Your task to perform on an android device: Go to network settings Image 0: 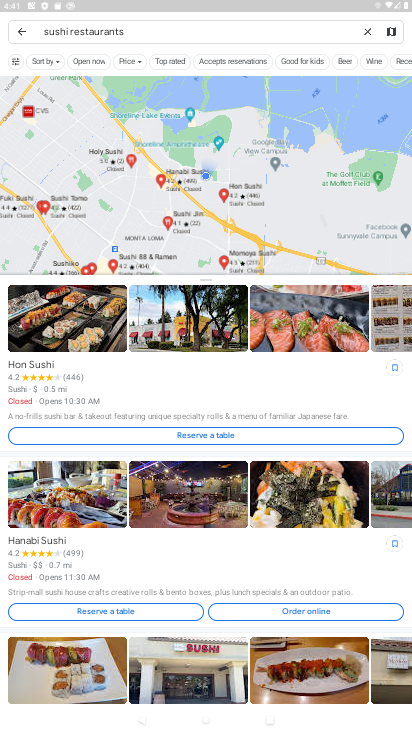
Step 0: press home button
Your task to perform on an android device: Go to network settings Image 1: 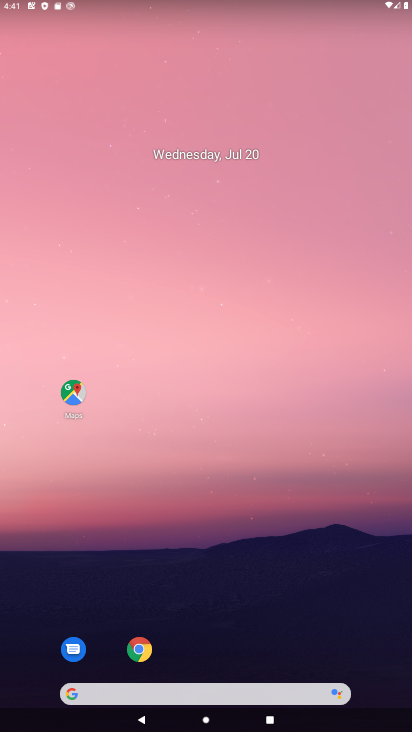
Step 1: drag from (250, 683) to (265, 140)
Your task to perform on an android device: Go to network settings Image 2: 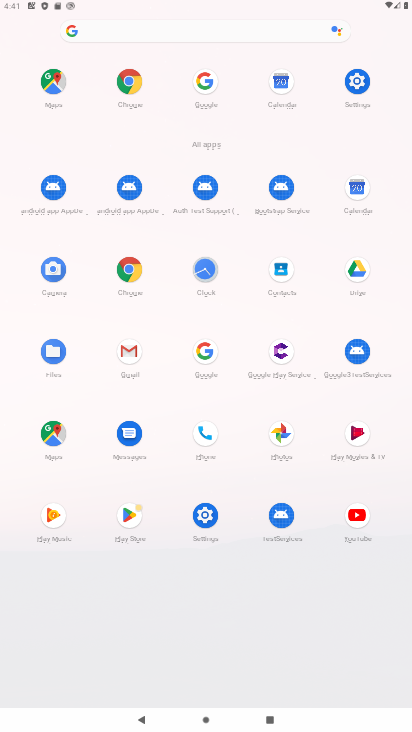
Step 2: click (354, 86)
Your task to perform on an android device: Go to network settings Image 3: 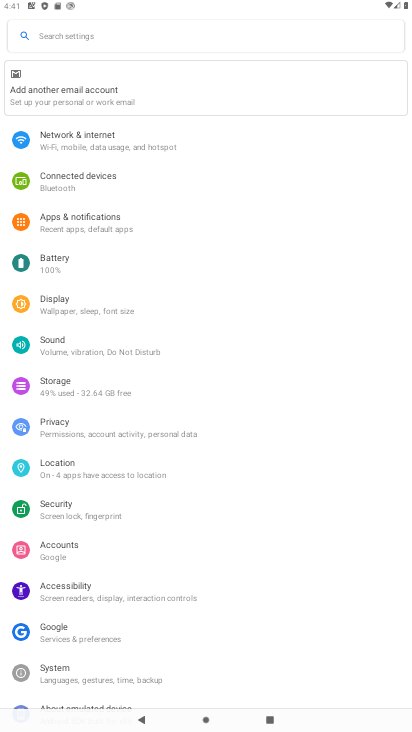
Step 3: click (100, 139)
Your task to perform on an android device: Go to network settings Image 4: 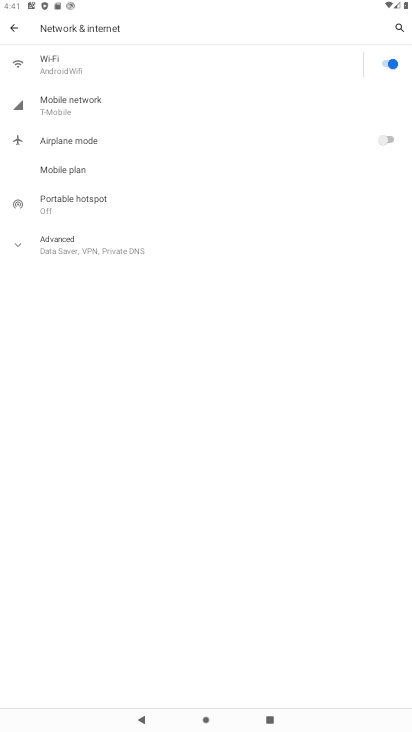
Step 4: click (87, 112)
Your task to perform on an android device: Go to network settings Image 5: 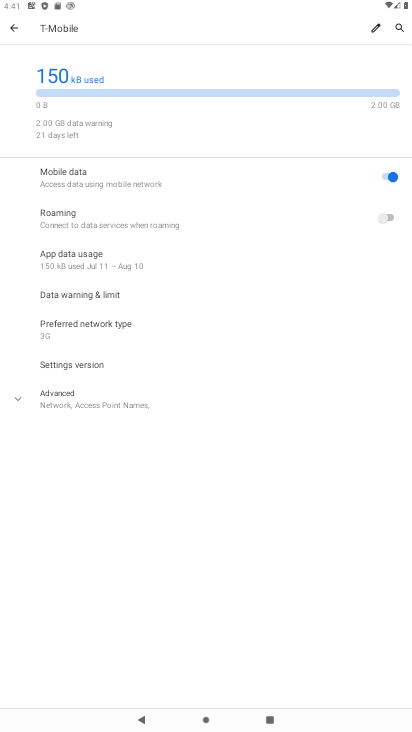
Step 5: task complete